Your task to perform on an android device: turn off javascript in the chrome app Image 0: 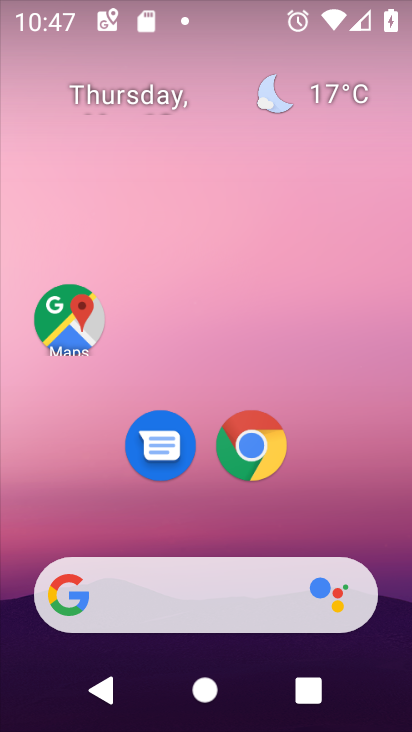
Step 0: drag from (242, 517) to (283, 196)
Your task to perform on an android device: turn off javascript in the chrome app Image 1: 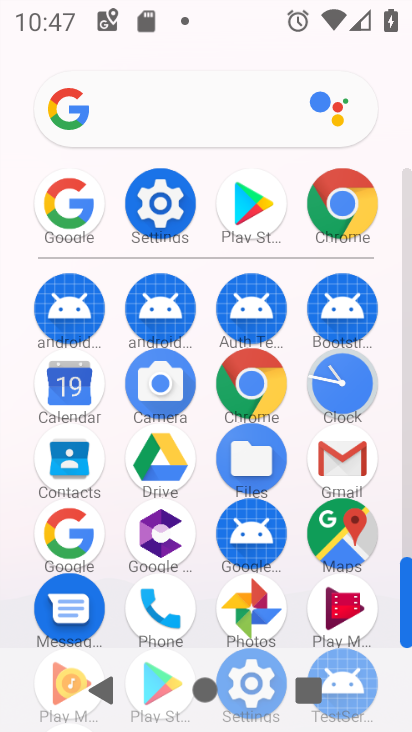
Step 1: click (272, 382)
Your task to perform on an android device: turn off javascript in the chrome app Image 2: 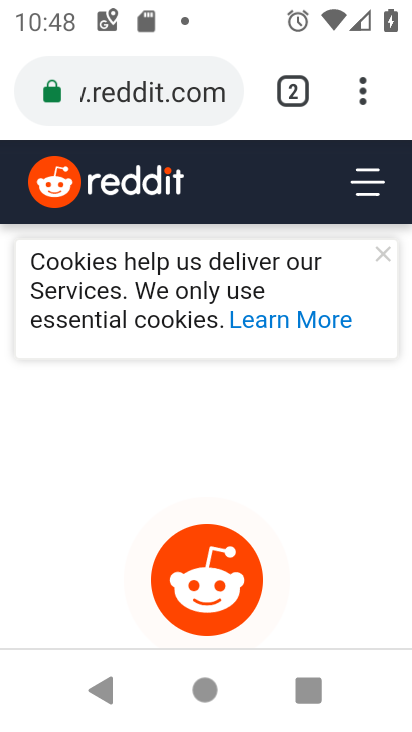
Step 2: click (353, 97)
Your task to perform on an android device: turn off javascript in the chrome app Image 3: 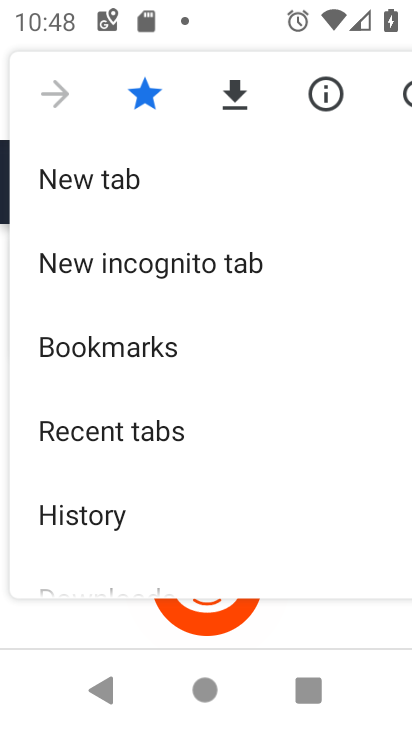
Step 3: drag from (210, 451) to (258, 173)
Your task to perform on an android device: turn off javascript in the chrome app Image 4: 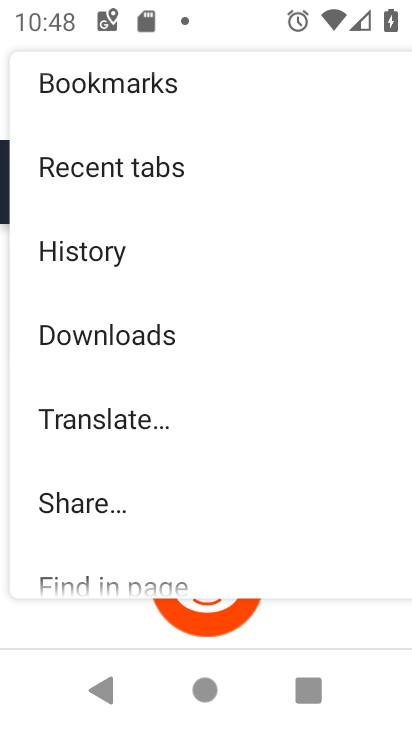
Step 4: drag from (198, 533) to (231, 243)
Your task to perform on an android device: turn off javascript in the chrome app Image 5: 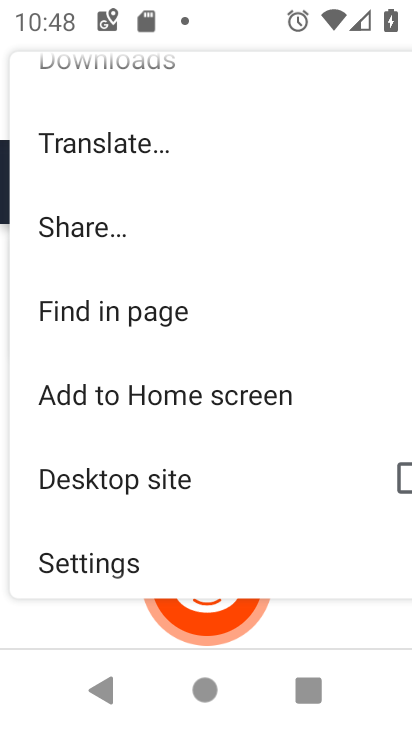
Step 5: click (171, 560)
Your task to perform on an android device: turn off javascript in the chrome app Image 6: 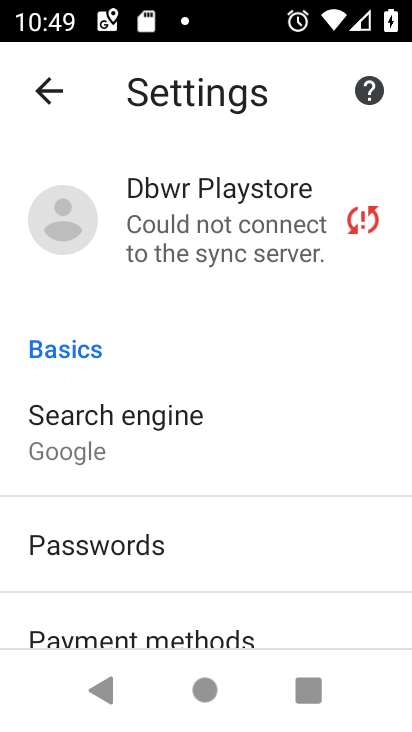
Step 6: drag from (160, 585) to (249, 123)
Your task to perform on an android device: turn off javascript in the chrome app Image 7: 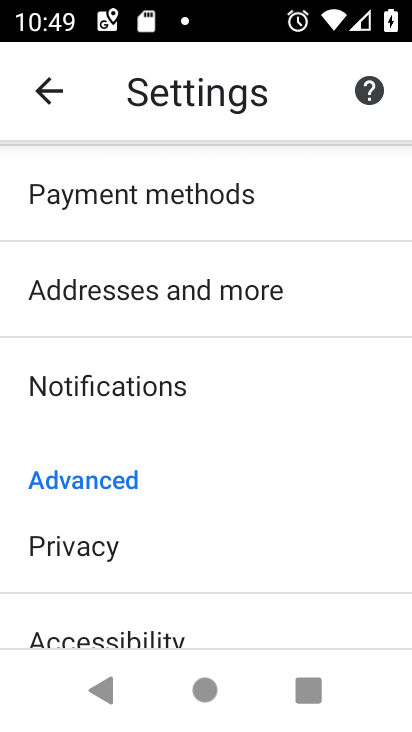
Step 7: drag from (188, 581) to (235, 235)
Your task to perform on an android device: turn off javascript in the chrome app Image 8: 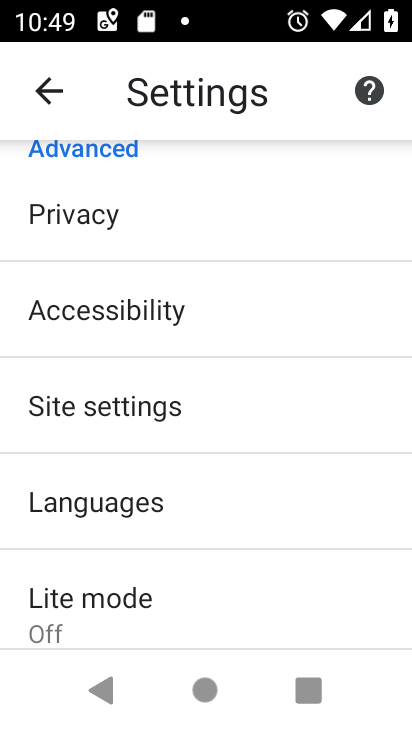
Step 8: click (185, 403)
Your task to perform on an android device: turn off javascript in the chrome app Image 9: 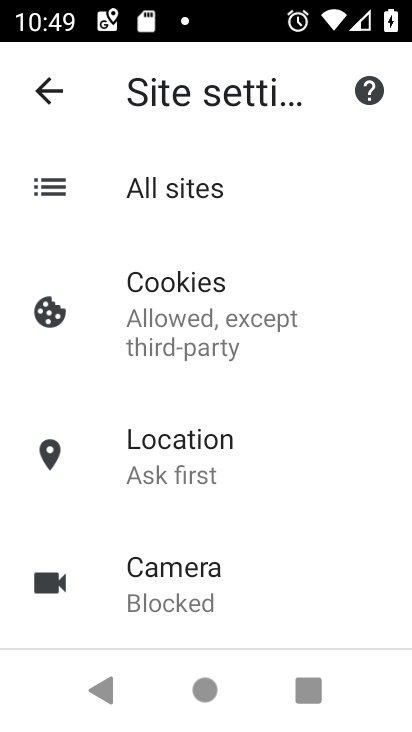
Step 9: task complete